Your task to perform on an android device: open app "The Home Depot" (install if not already installed), go to login, and select forgot password Image 0: 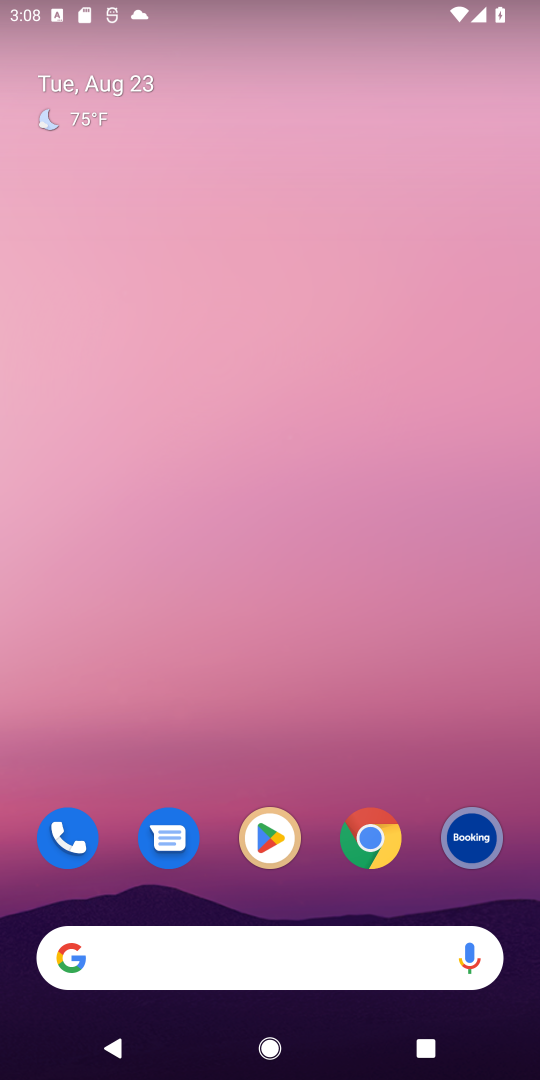
Step 0: click (254, 848)
Your task to perform on an android device: open app "The Home Depot" (install if not already installed), go to login, and select forgot password Image 1: 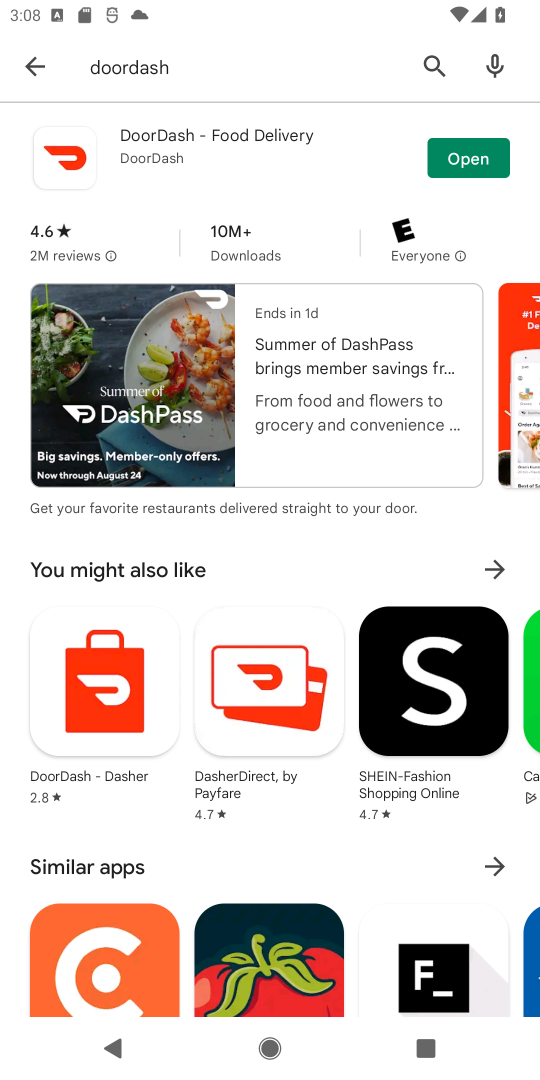
Step 1: click (16, 71)
Your task to perform on an android device: open app "The Home Depot" (install if not already installed), go to login, and select forgot password Image 2: 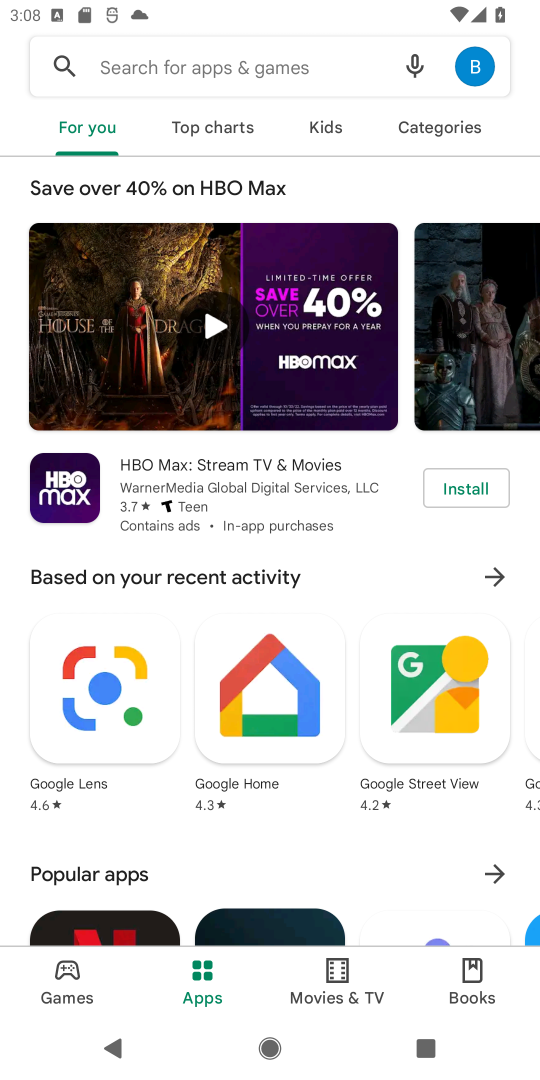
Step 2: click (130, 78)
Your task to perform on an android device: open app "The Home Depot" (install if not already installed), go to login, and select forgot password Image 3: 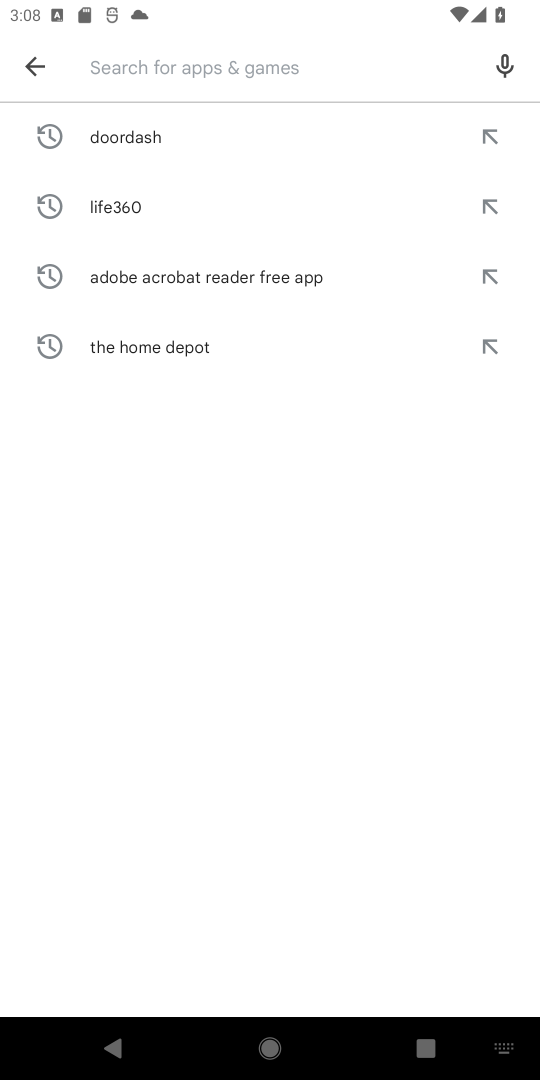
Step 3: type "The Home Depot"
Your task to perform on an android device: open app "The Home Depot" (install if not already installed), go to login, and select forgot password Image 4: 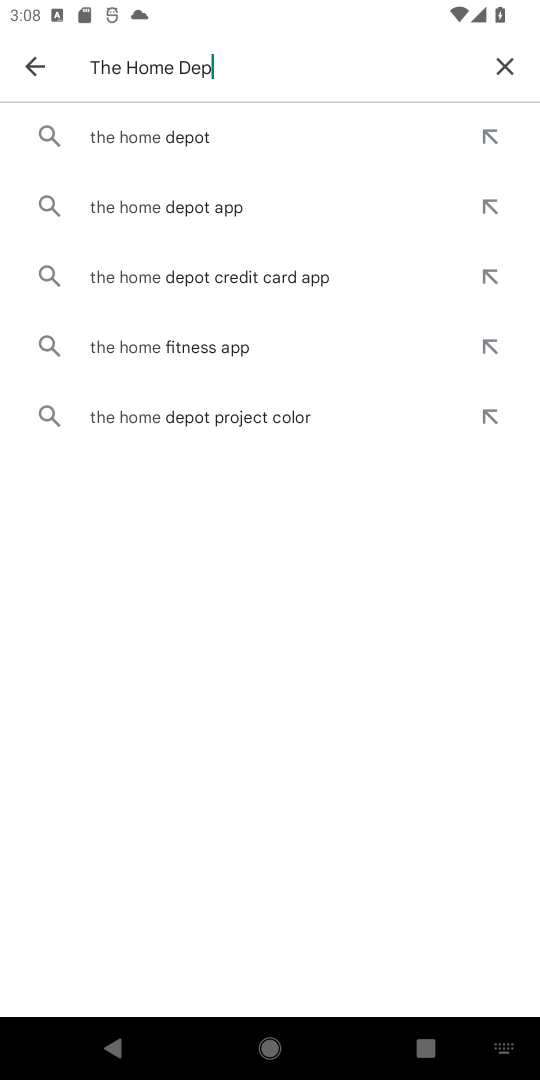
Step 4: type ""
Your task to perform on an android device: open app "The Home Depot" (install if not already installed), go to login, and select forgot password Image 5: 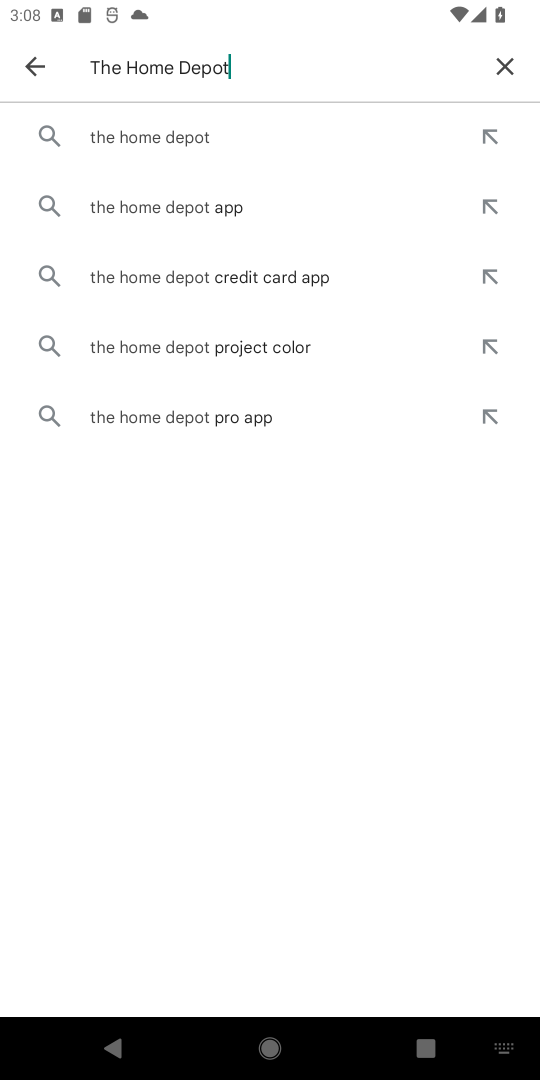
Step 5: click (170, 145)
Your task to perform on an android device: open app "The Home Depot" (install if not already installed), go to login, and select forgot password Image 6: 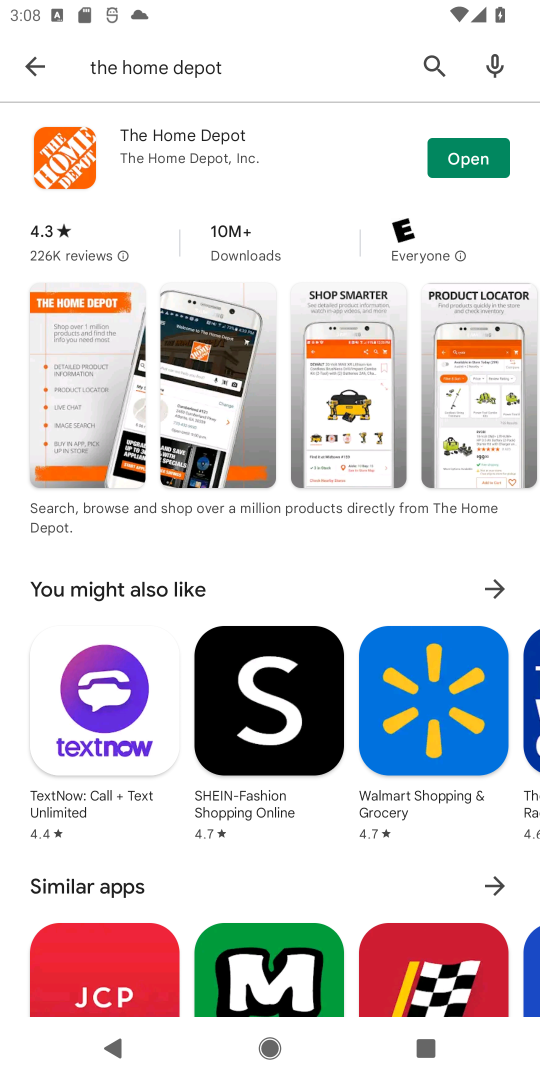
Step 6: click (436, 167)
Your task to perform on an android device: open app "The Home Depot" (install if not already installed), go to login, and select forgot password Image 7: 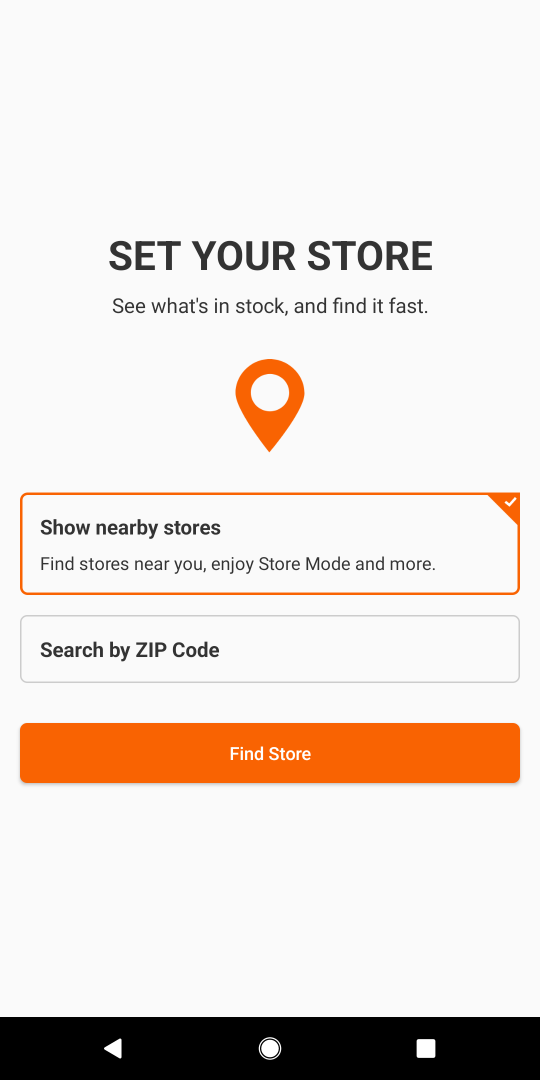
Step 7: click (240, 762)
Your task to perform on an android device: open app "The Home Depot" (install if not already installed), go to login, and select forgot password Image 8: 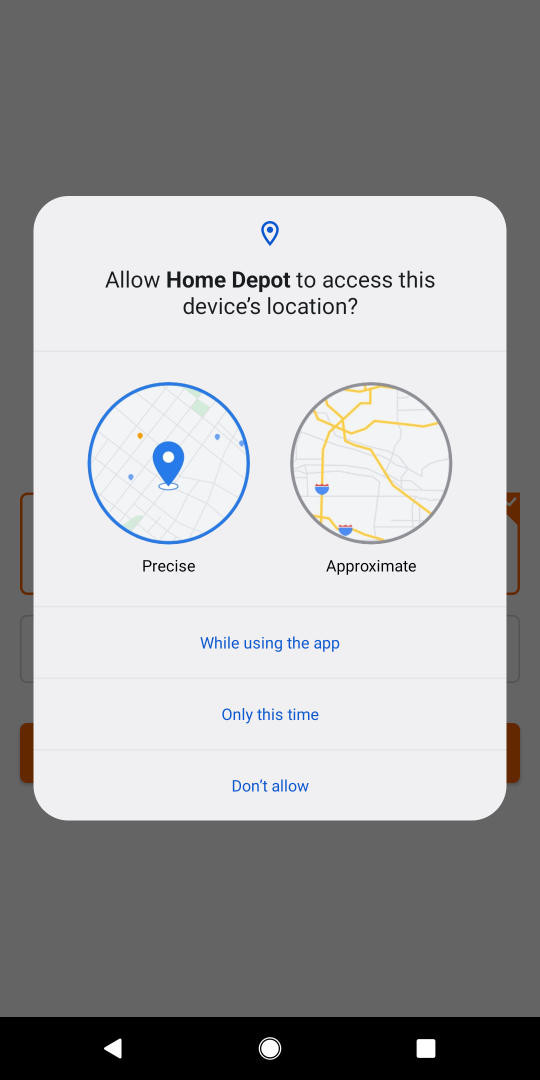
Step 8: click (303, 631)
Your task to perform on an android device: open app "The Home Depot" (install if not already installed), go to login, and select forgot password Image 9: 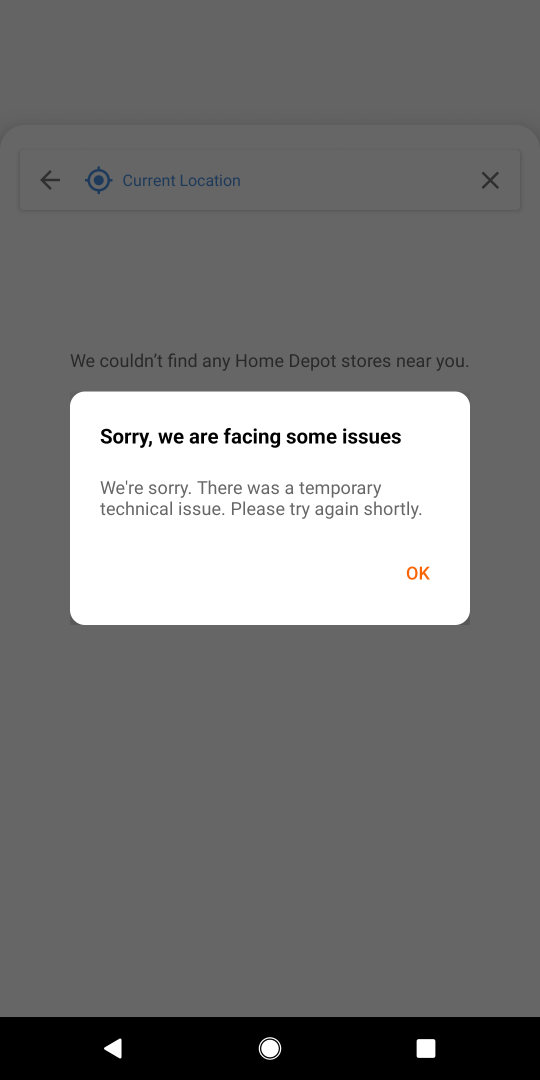
Step 9: click (419, 581)
Your task to perform on an android device: open app "The Home Depot" (install if not already installed), go to login, and select forgot password Image 10: 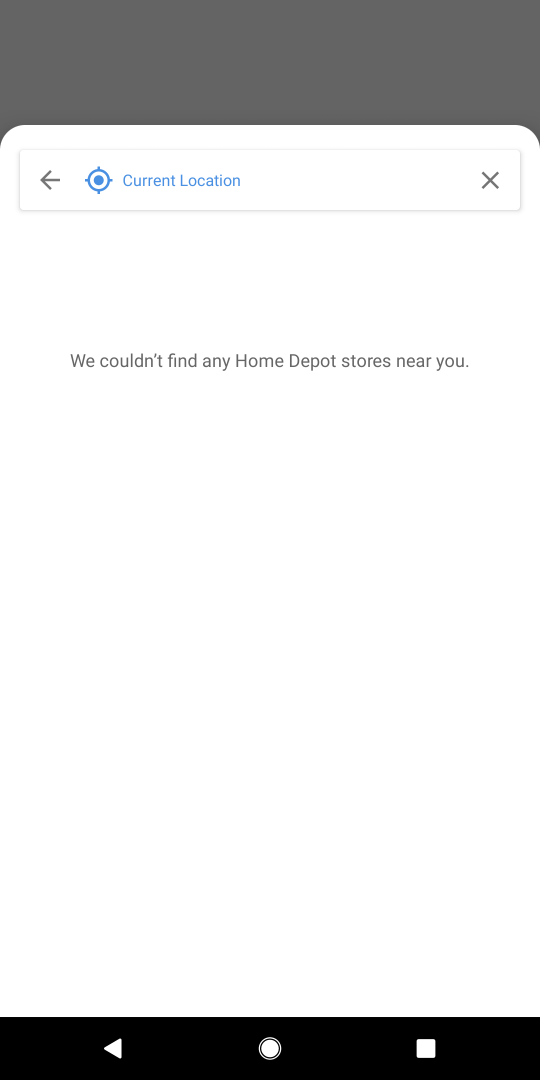
Step 10: task complete